Your task to perform on an android device: check out phone information Image 0: 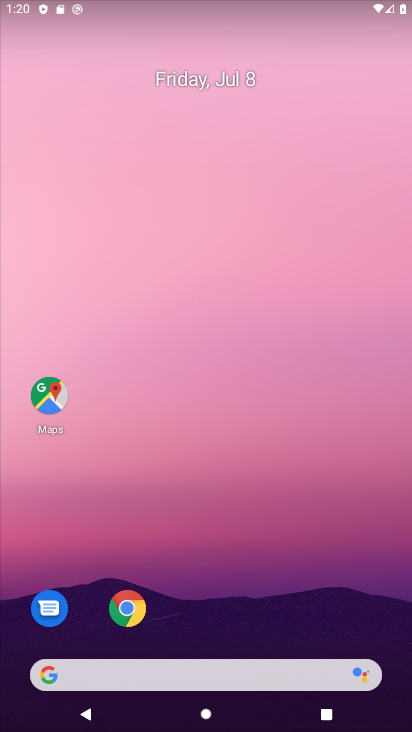
Step 0: drag from (253, 4) to (274, 380)
Your task to perform on an android device: check out phone information Image 1: 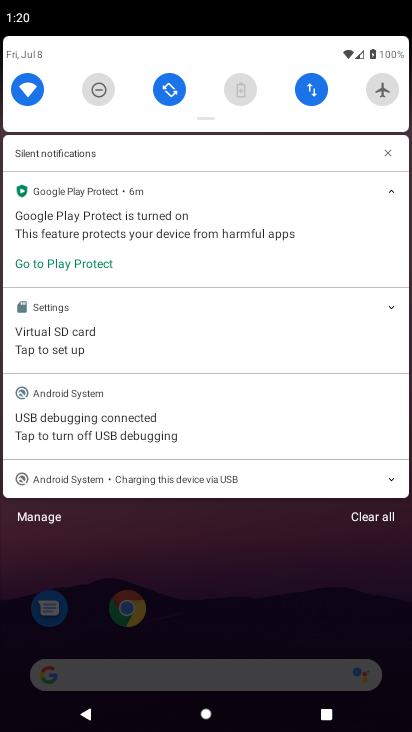
Step 1: drag from (279, 65) to (274, 512)
Your task to perform on an android device: check out phone information Image 2: 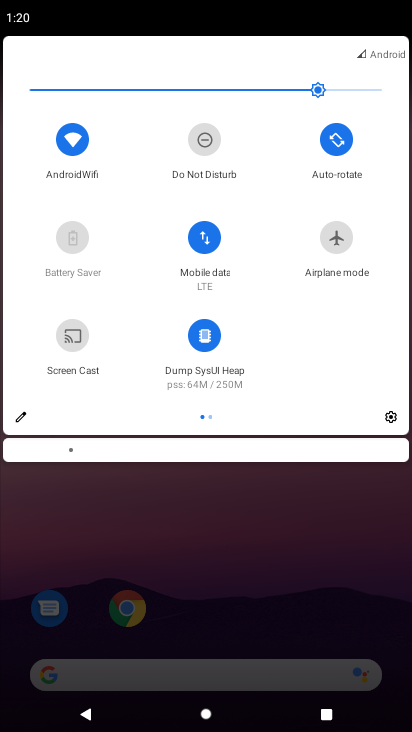
Step 2: click (395, 419)
Your task to perform on an android device: check out phone information Image 3: 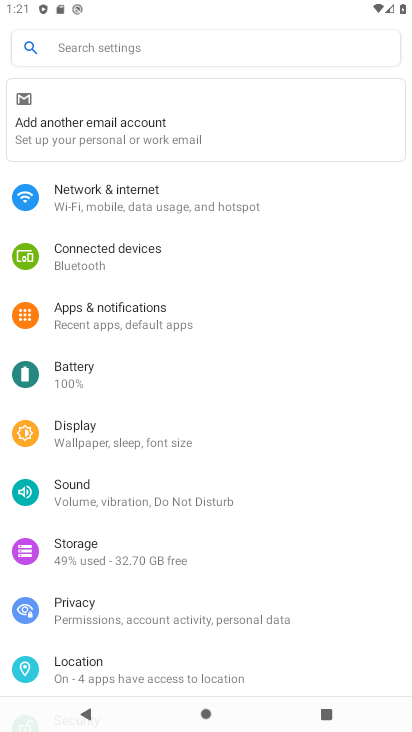
Step 3: drag from (187, 653) to (218, 212)
Your task to perform on an android device: check out phone information Image 4: 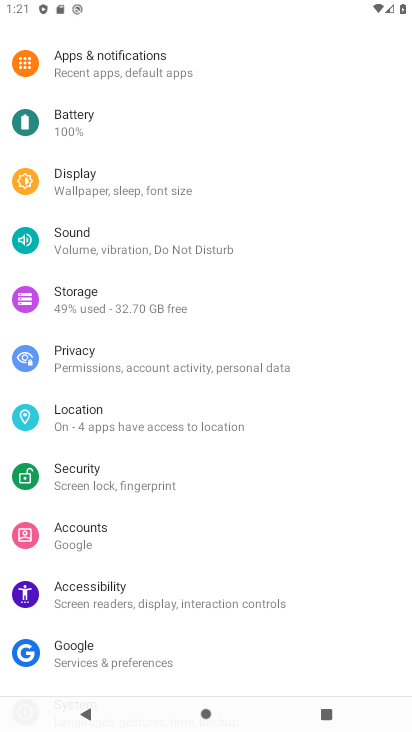
Step 4: drag from (52, 627) to (115, 85)
Your task to perform on an android device: check out phone information Image 5: 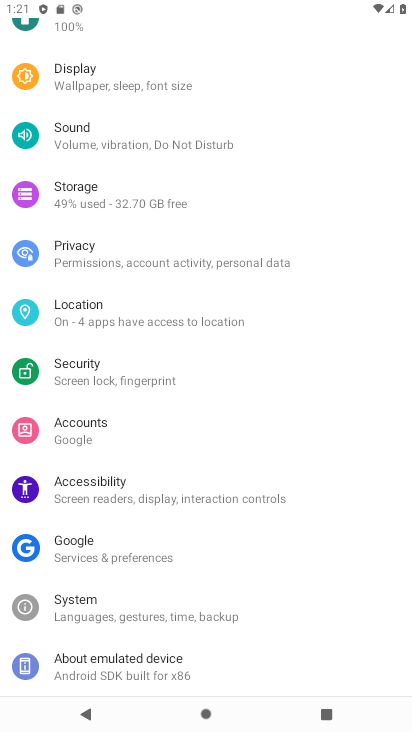
Step 5: drag from (291, 183) to (195, 76)
Your task to perform on an android device: check out phone information Image 6: 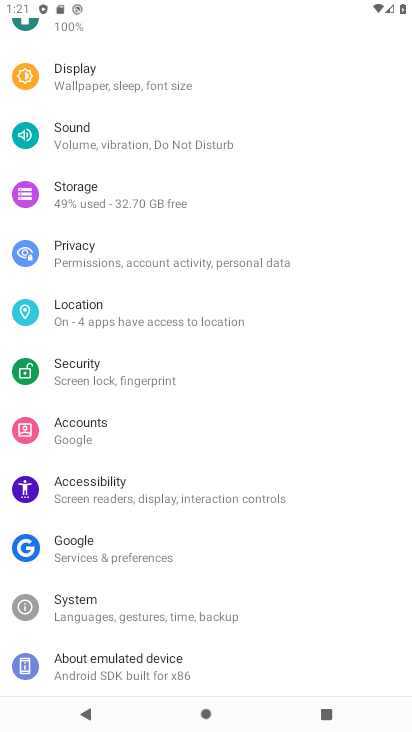
Step 6: click (85, 652)
Your task to perform on an android device: check out phone information Image 7: 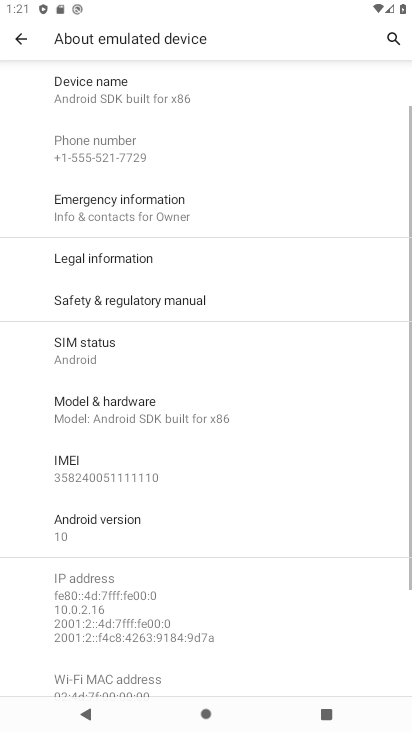
Step 7: task complete